Your task to perform on an android device: Go to sound settings Image 0: 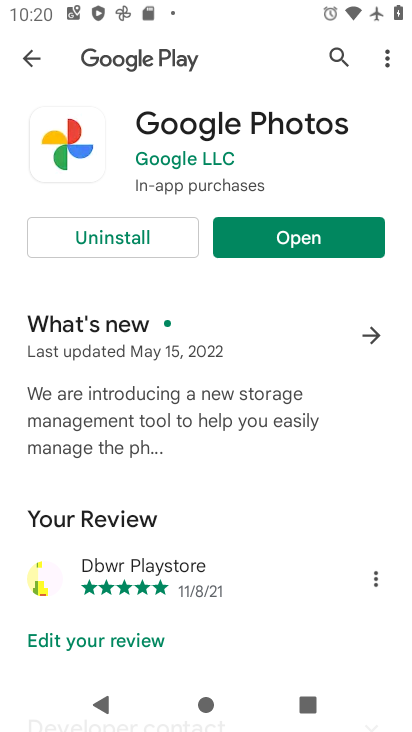
Step 0: press home button
Your task to perform on an android device: Go to sound settings Image 1: 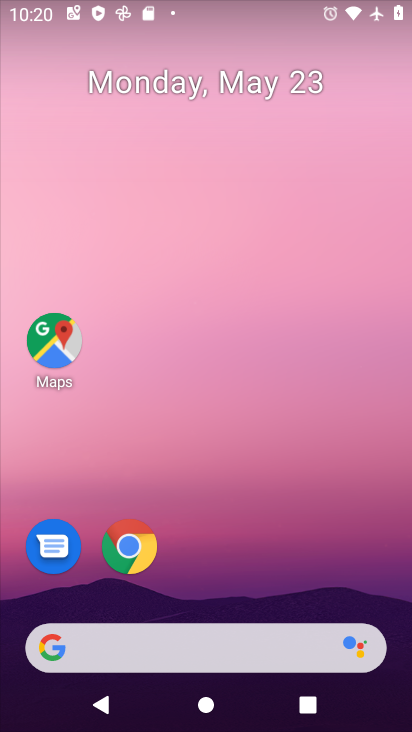
Step 1: drag from (388, 587) to (322, 53)
Your task to perform on an android device: Go to sound settings Image 2: 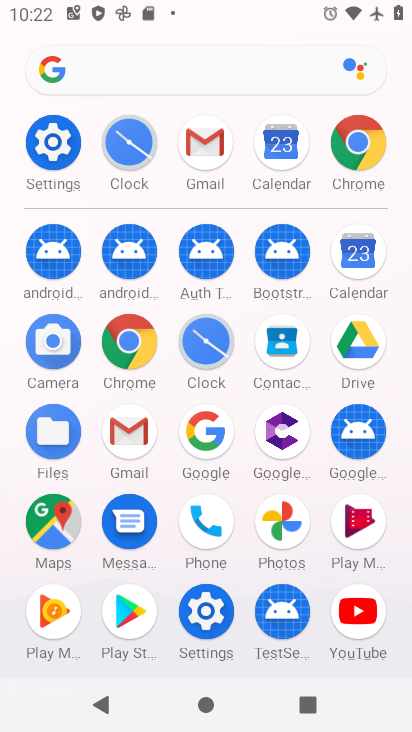
Step 2: click (202, 613)
Your task to perform on an android device: Go to sound settings Image 3: 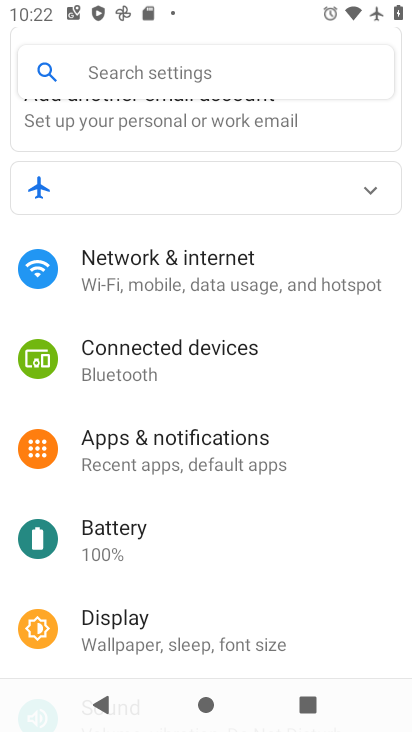
Step 3: drag from (188, 633) to (186, 227)
Your task to perform on an android device: Go to sound settings Image 4: 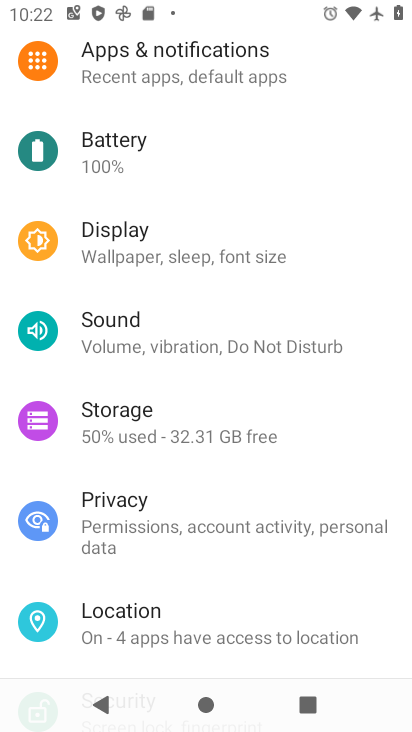
Step 4: click (130, 315)
Your task to perform on an android device: Go to sound settings Image 5: 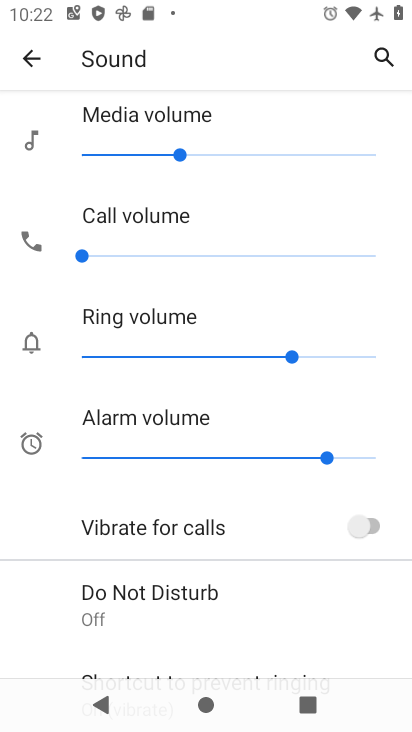
Step 5: drag from (259, 640) to (322, 125)
Your task to perform on an android device: Go to sound settings Image 6: 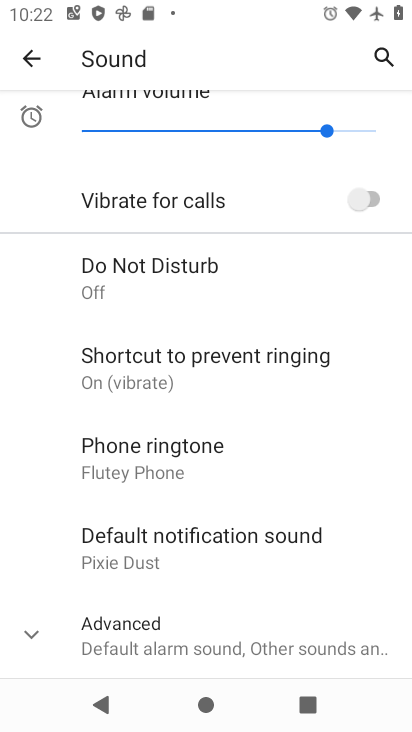
Step 6: click (35, 632)
Your task to perform on an android device: Go to sound settings Image 7: 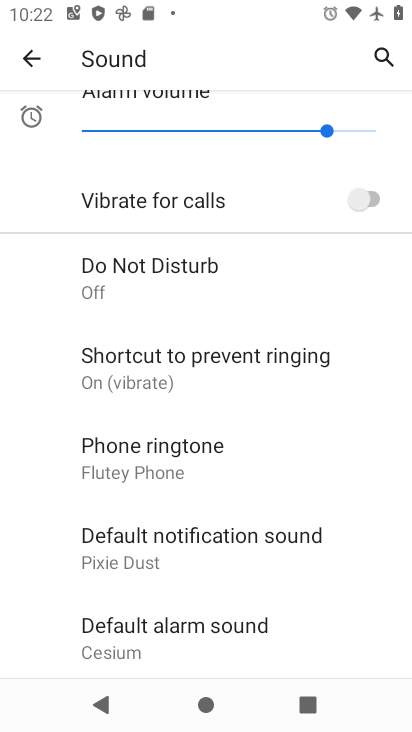
Step 7: task complete